Your task to perform on an android device: Open Chrome and go to the settings page Image 0: 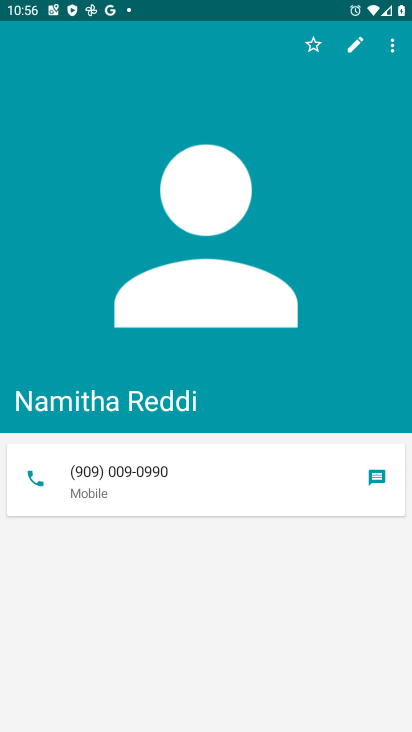
Step 0: press home button
Your task to perform on an android device: Open Chrome and go to the settings page Image 1: 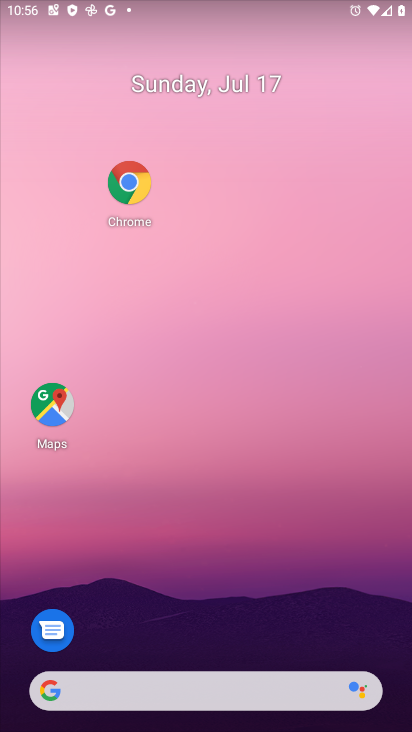
Step 1: click (122, 188)
Your task to perform on an android device: Open Chrome and go to the settings page Image 2: 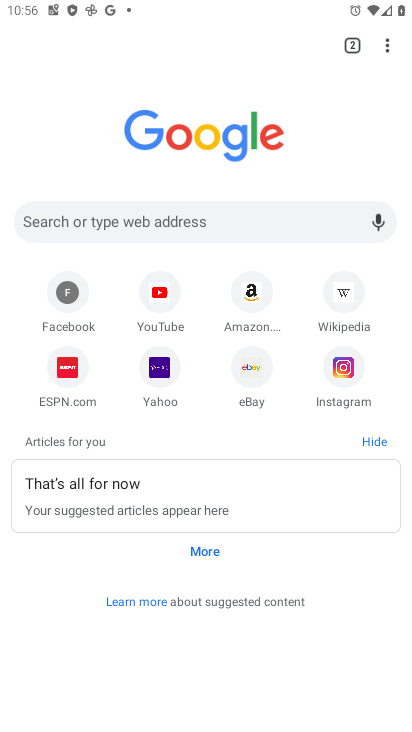
Step 2: click (384, 49)
Your task to perform on an android device: Open Chrome and go to the settings page Image 3: 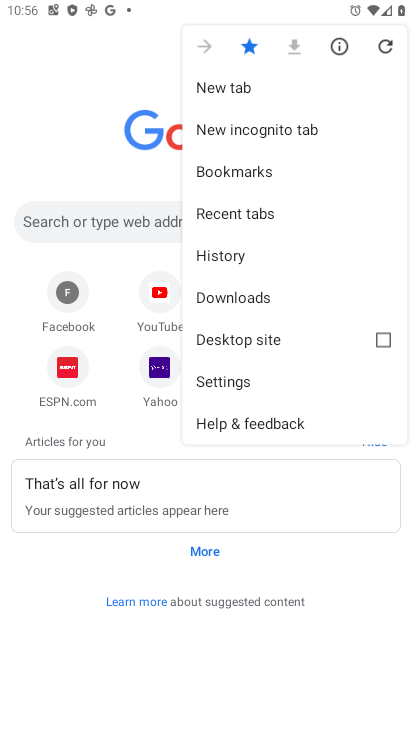
Step 3: click (229, 365)
Your task to perform on an android device: Open Chrome and go to the settings page Image 4: 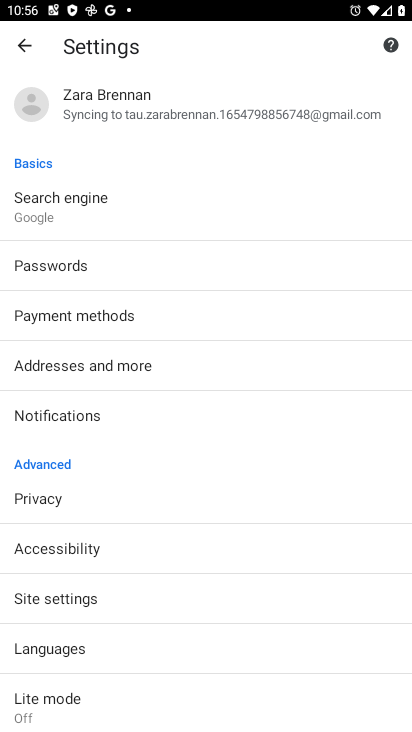
Step 4: task complete